Your task to perform on an android device: Do I have any events tomorrow? Image 0: 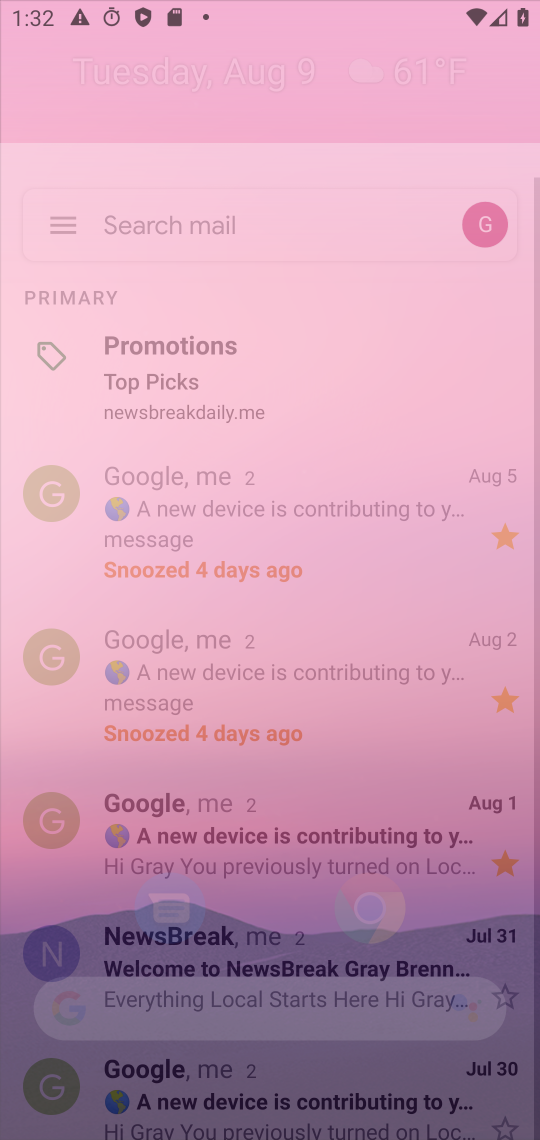
Step 0: press home button
Your task to perform on an android device: Do I have any events tomorrow? Image 1: 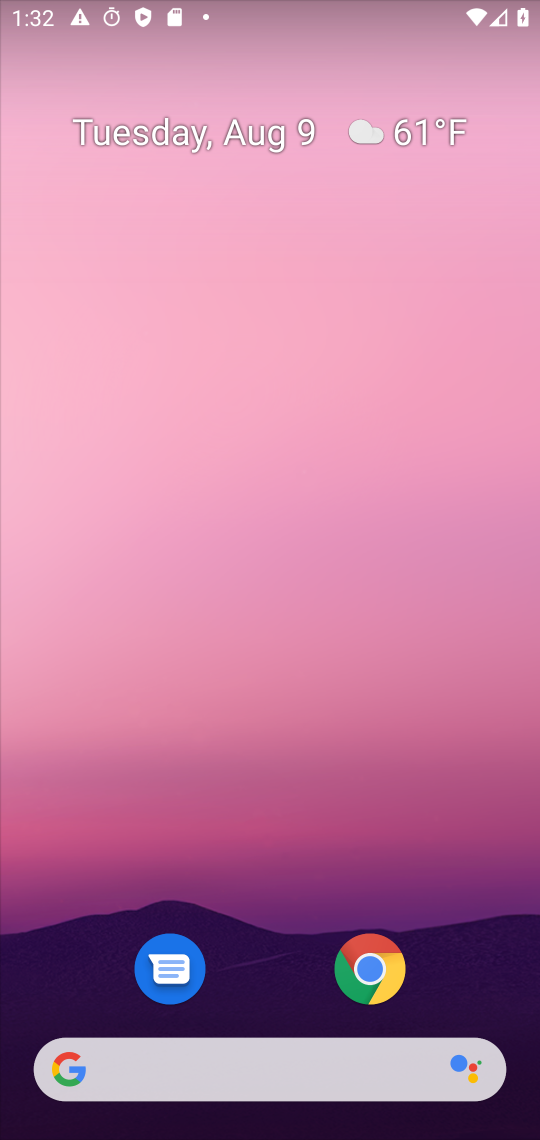
Step 1: drag from (343, 1090) to (345, 330)
Your task to perform on an android device: Do I have any events tomorrow? Image 2: 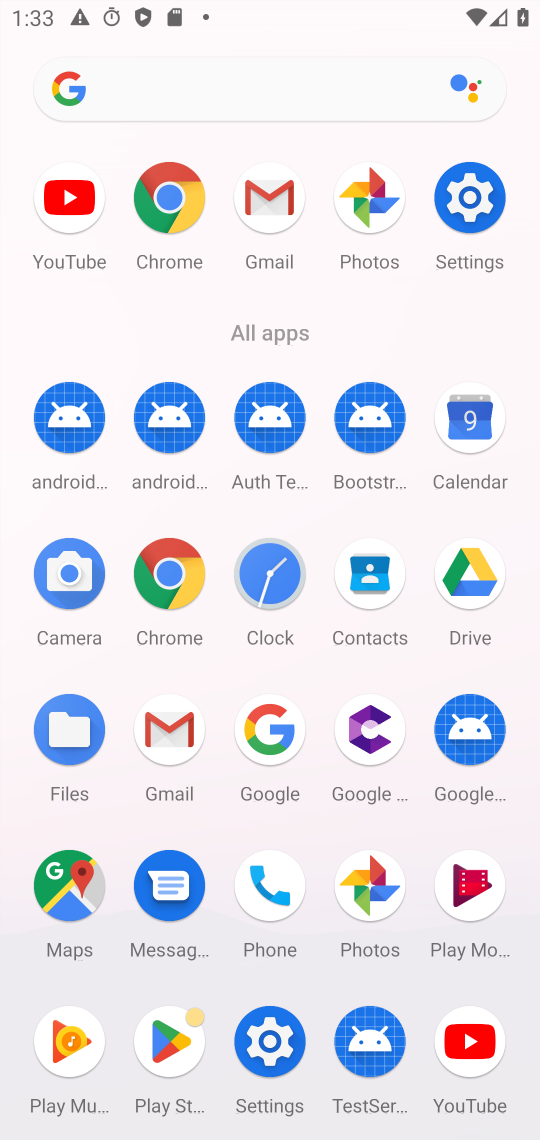
Step 2: click (472, 428)
Your task to perform on an android device: Do I have any events tomorrow? Image 3: 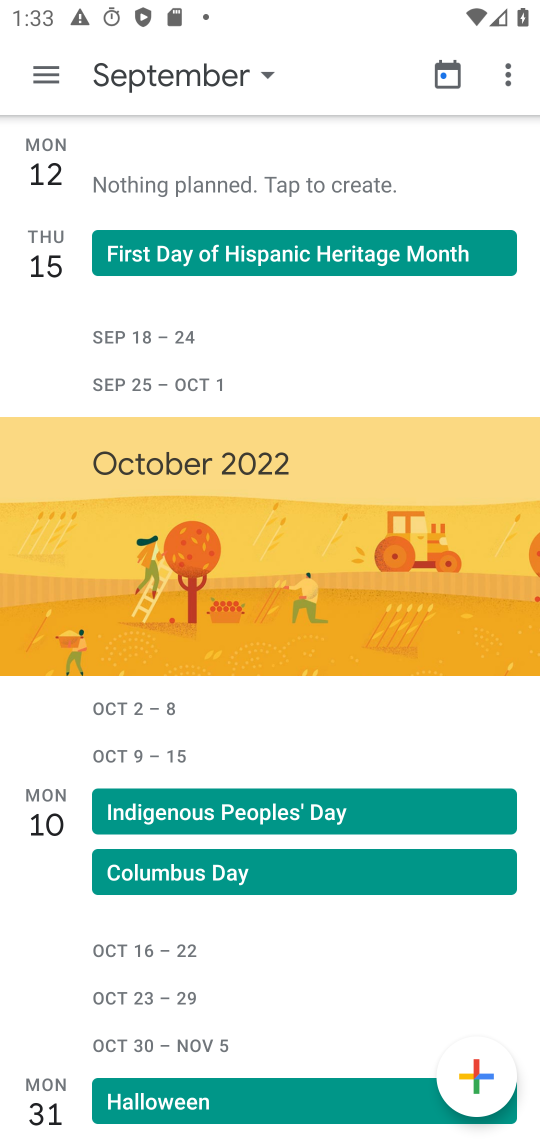
Step 3: click (33, 82)
Your task to perform on an android device: Do I have any events tomorrow? Image 4: 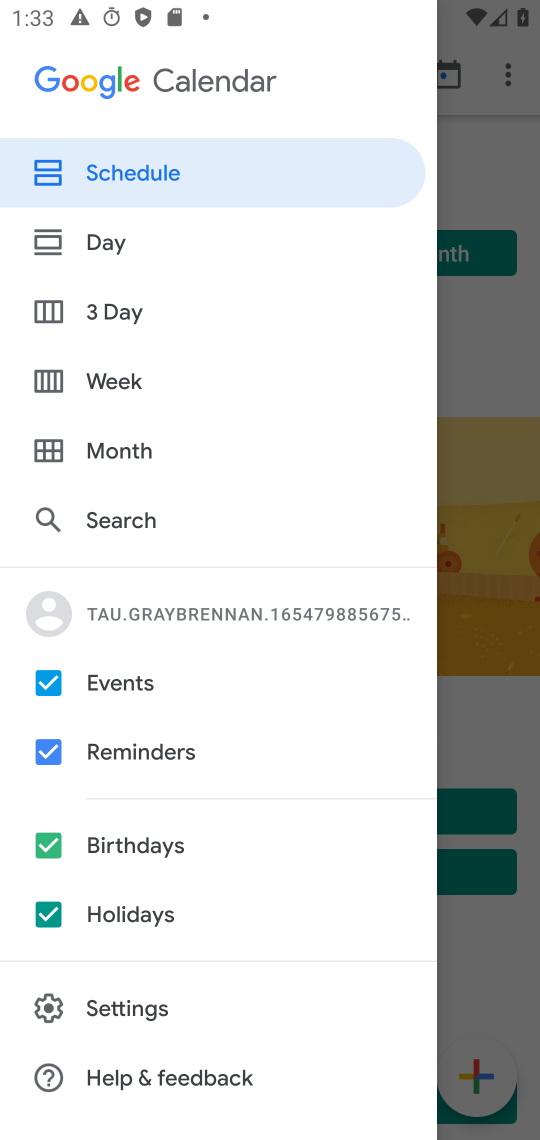
Step 4: click (113, 439)
Your task to perform on an android device: Do I have any events tomorrow? Image 5: 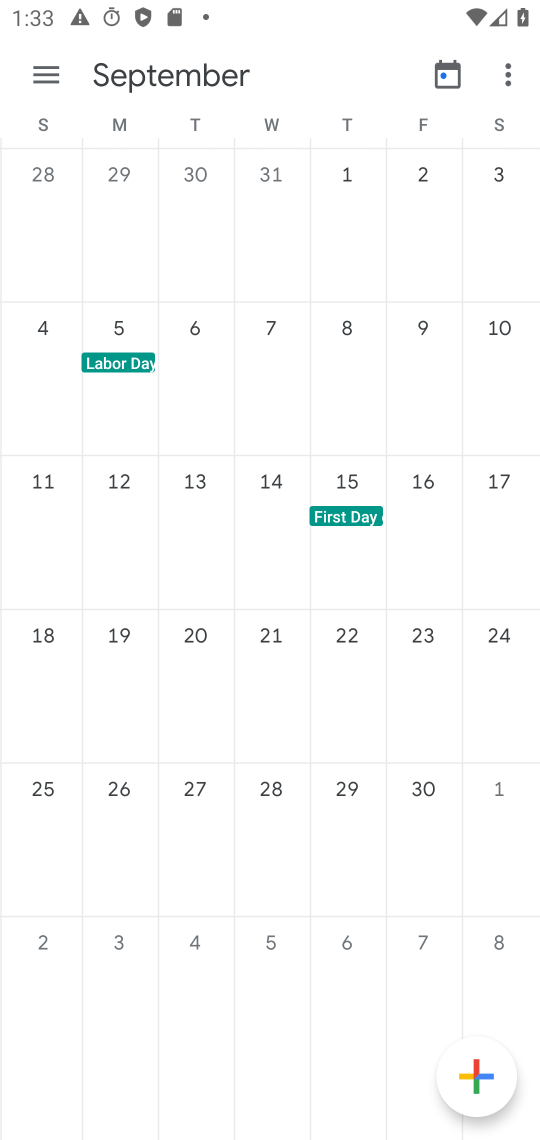
Step 5: drag from (79, 675) to (517, 411)
Your task to perform on an android device: Do I have any events tomorrow? Image 6: 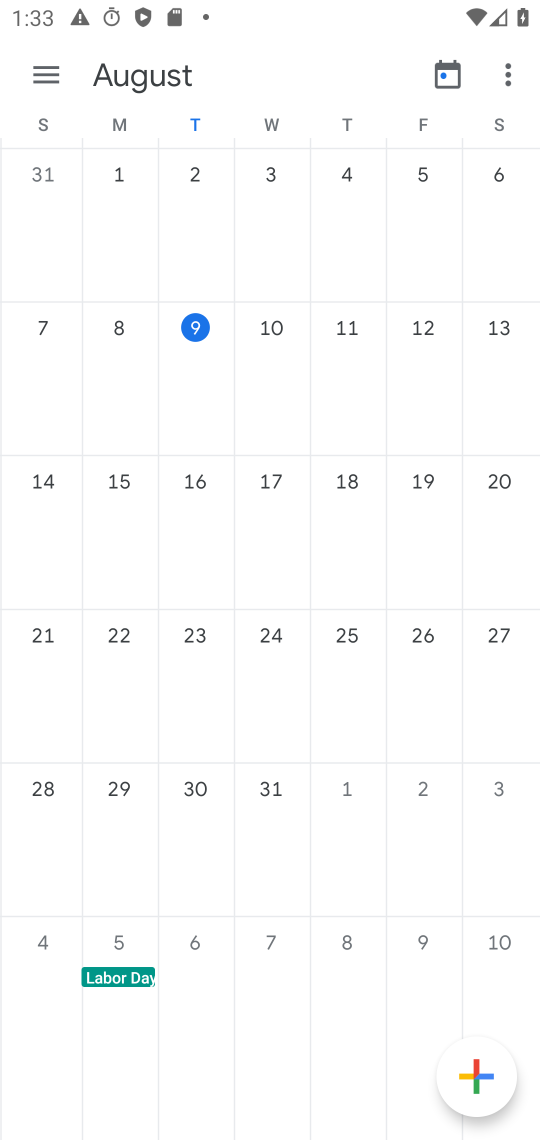
Step 6: click (277, 403)
Your task to perform on an android device: Do I have any events tomorrow? Image 7: 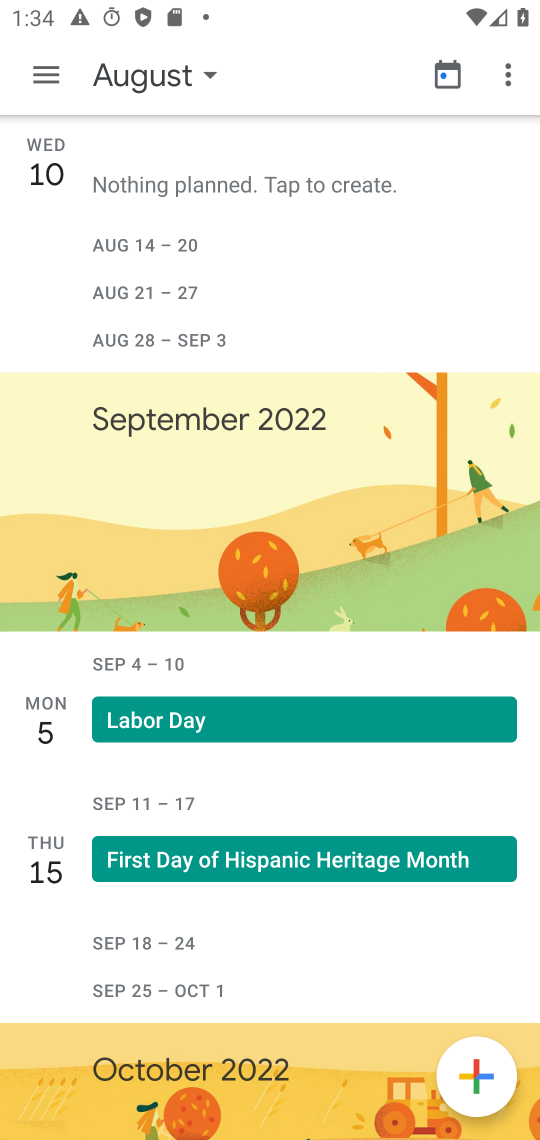
Step 7: task complete